Your task to perform on an android device: change the clock display to digital Image 0: 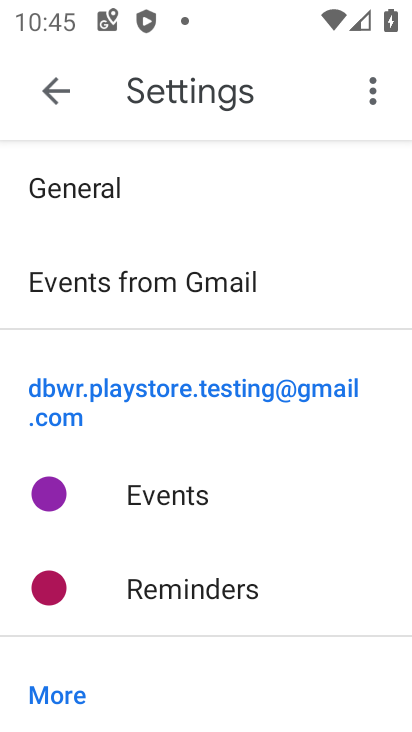
Step 0: press home button
Your task to perform on an android device: change the clock display to digital Image 1: 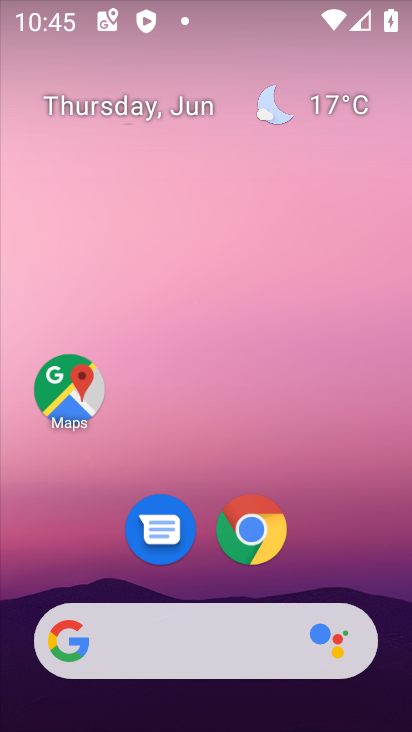
Step 1: drag from (335, 551) to (358, 0)
Your task to perform on an android device: change the clock display to digital Image 2: 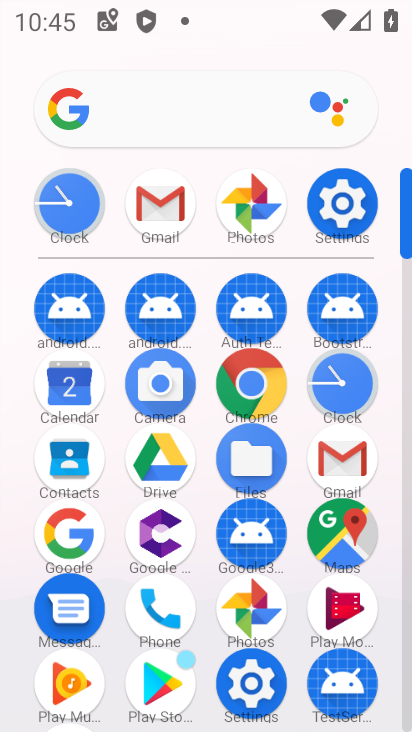
Step 2: click (339, 379)
Your task to perform on an android device: change the clock display to digital Image 3: 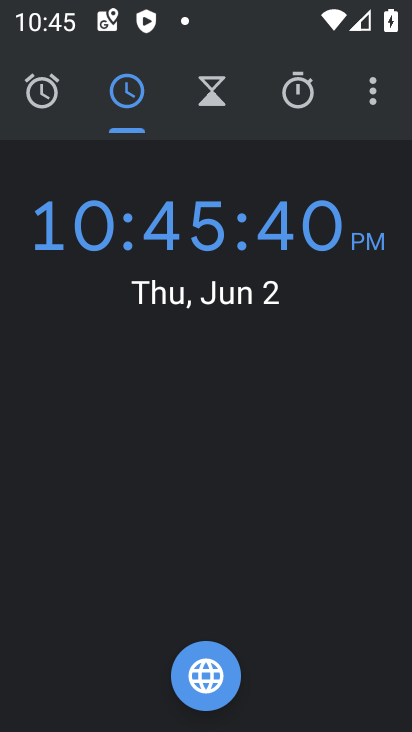
Step 3: click (364, 96)
Your task to perform on an android device: change the clock display to digital Image 4: 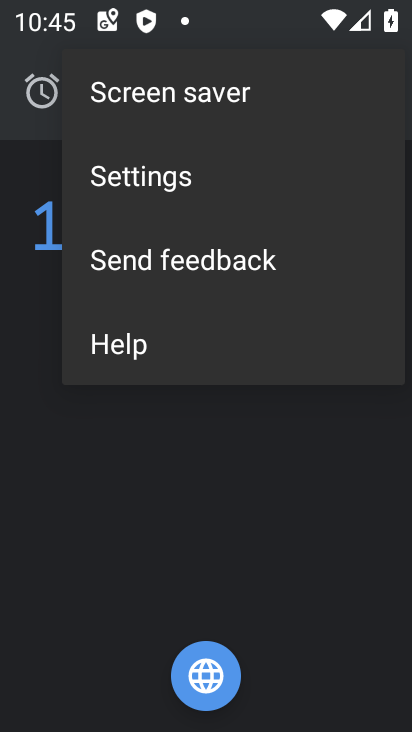
Step 4: click (141, 186)
Your task to perform on an android device: change the clock display to digital Image 5: 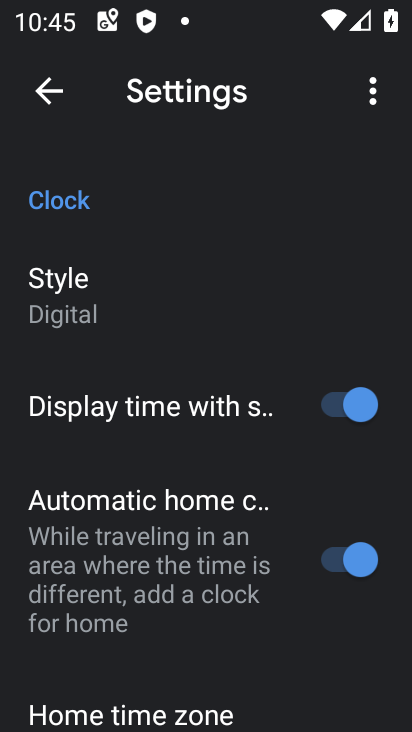
Step 5: click (99, 274)
Your task to perform on an android device: change the clock display to digital Image 6: 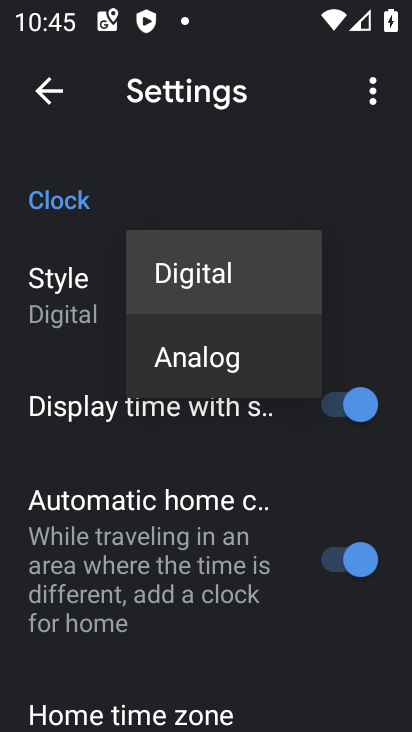
Step 6: click (183, 270)
Your task to perform on an android device: change the clock display to digital Image 7: 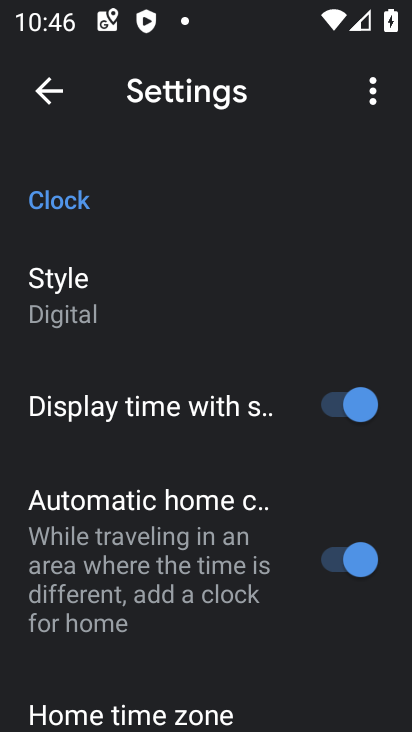
Step 7: task complete